Your task to perform on an android device: find photos in the google photos app Image 0: 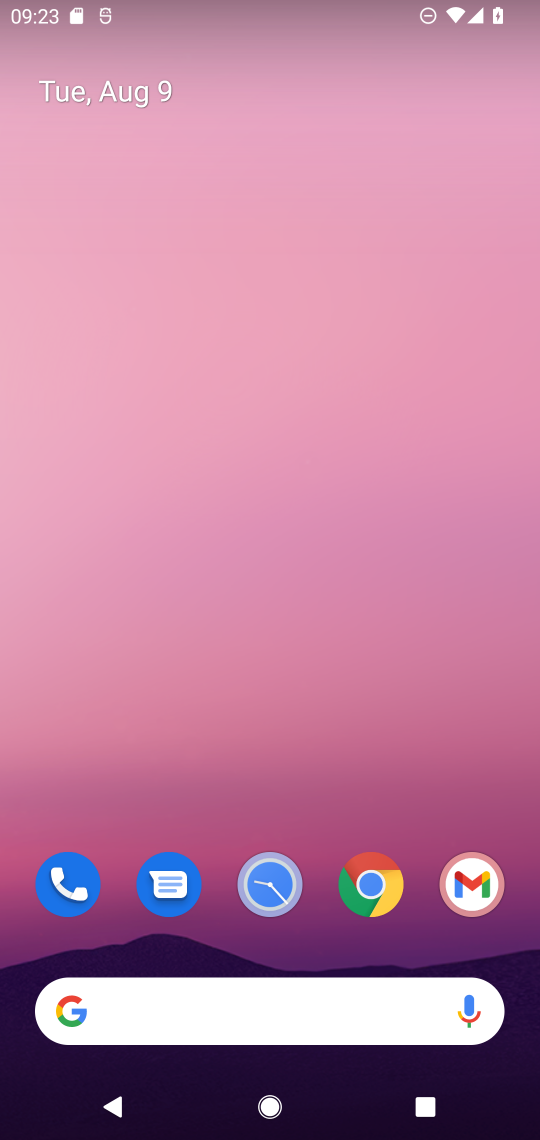
Step 0: drag from (160, 939) to (239, 185)
Your task to perform on an android device: find photos in the google photos app Image 1: 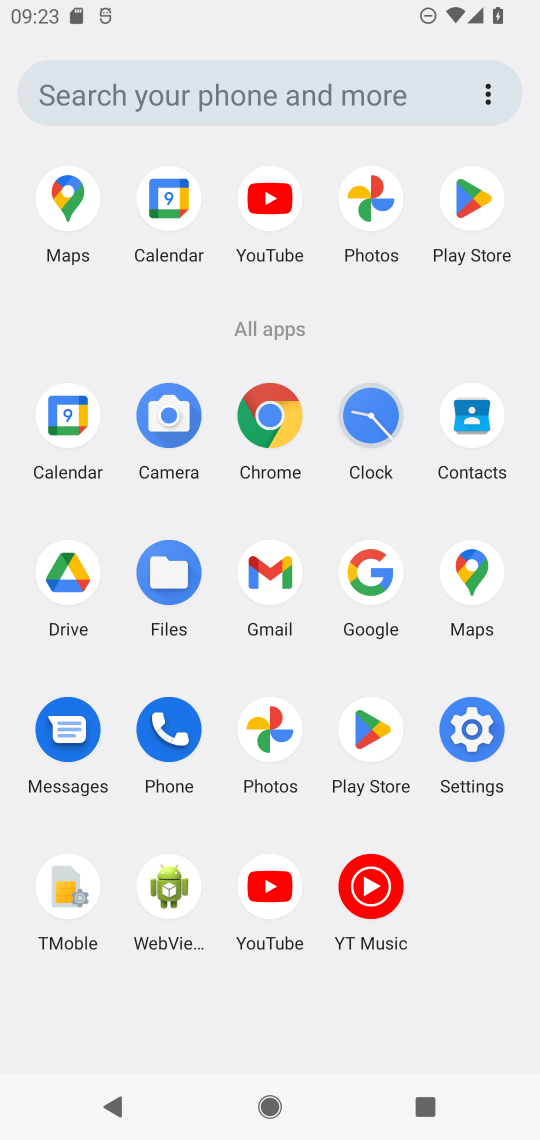
Step 1: click (257, 720)
Your task to perform on an android device: find photos in the google photos app Image 2: 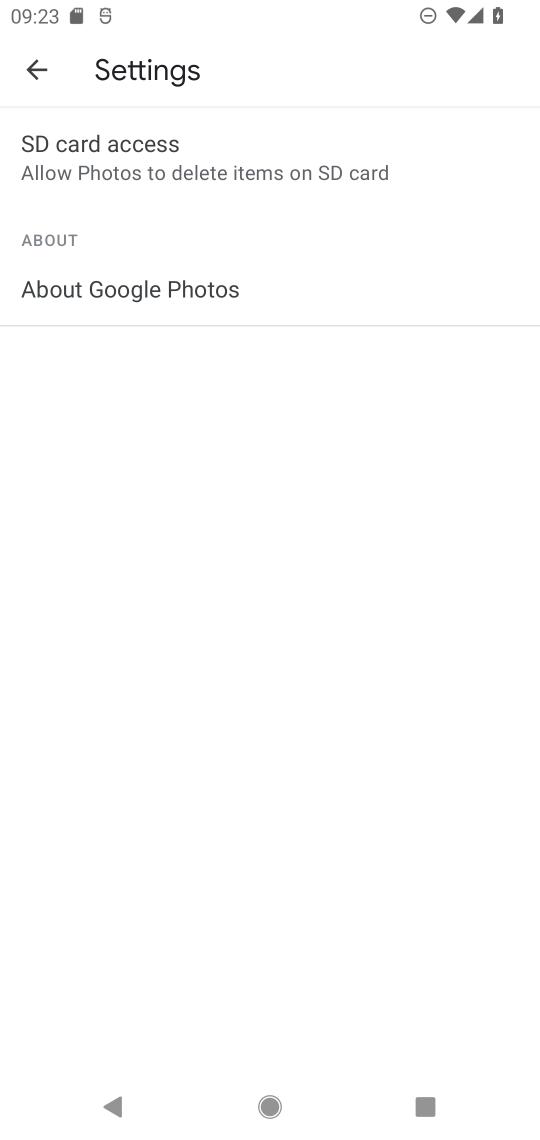
Step 2: click (34, 53)
Your task to perform on an android device: find photos in the google photos app Image 3: 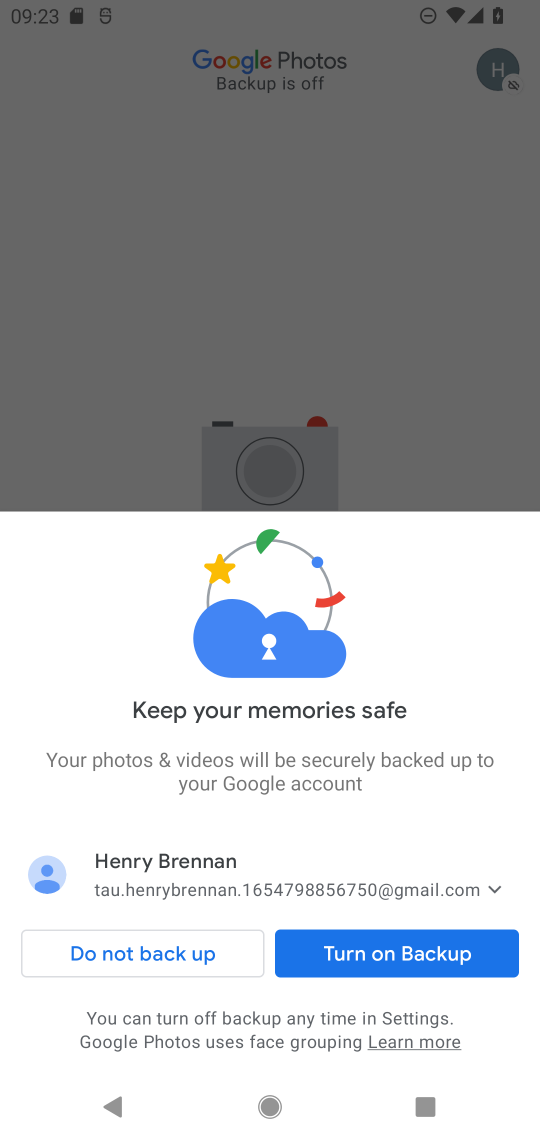
Step 3: click (199, 946)
Your task to perform on an android device: find photos in the google photos app Image 4: 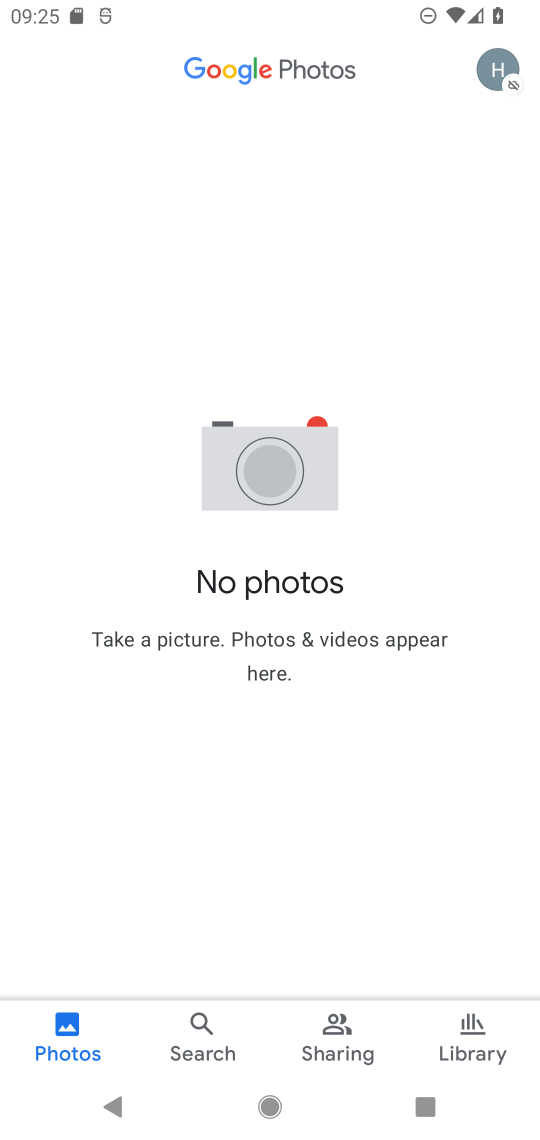
Step 4: task complete